Your task to perform on an android device: Open accessibility settings Image 0: 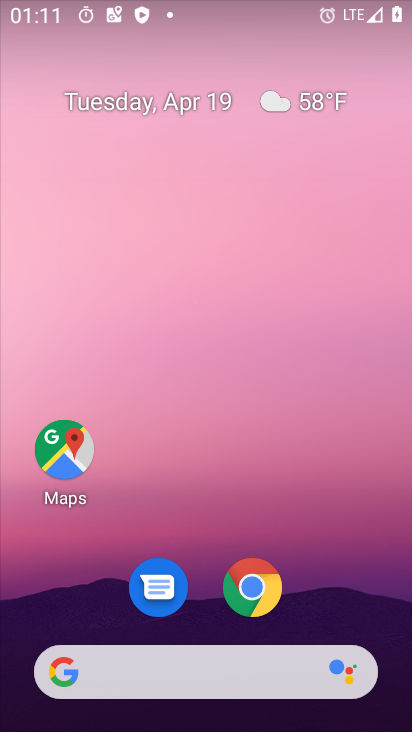
Step 0: drag from (347, 586) to (352, 128)
Your task to perform on an android device: Open accessibility settings Image 1: 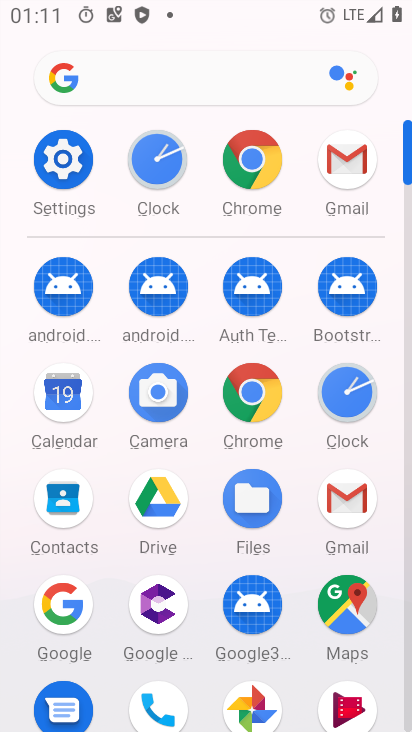
Step 1: click (76, 172)
Your task to perform on an android device: Open accessibility settings Image 2: 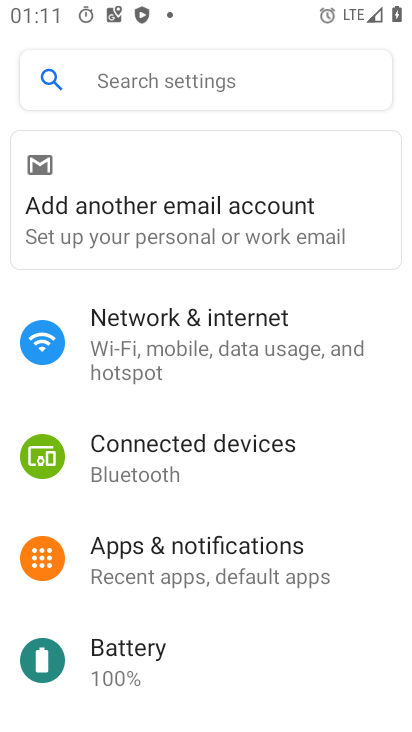
Step 2: drag from (287, 597) to (338, 261)
Your task to perform on an android device: Open accessibility settings Image 3: 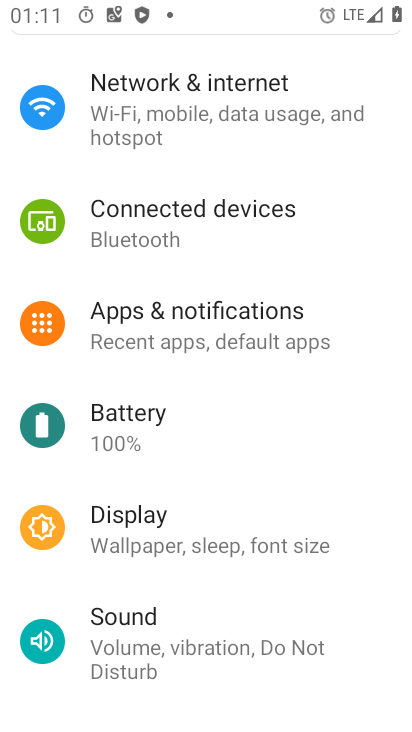
Step 3: drag from (356, 590) to (384, 220)
Your task to perform on an android device: Open accessibility settings Image 4: 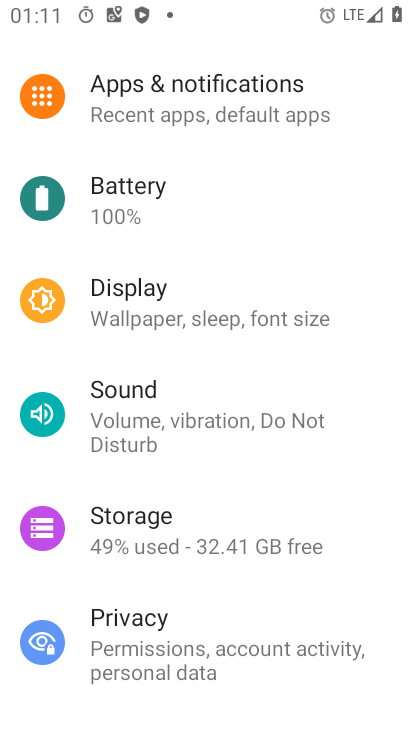
Step 4: drag from (347, 579) to (352, 257)
Your task to perform on an android device: Open accessibility settings Image 5: 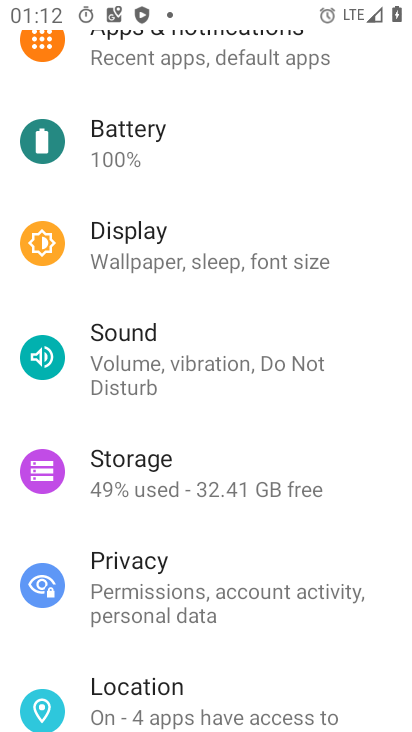
Step 5: drag from (299, 610) to (333, 246)
Your task to perform on an android device: Open accessibility settings Image 6: 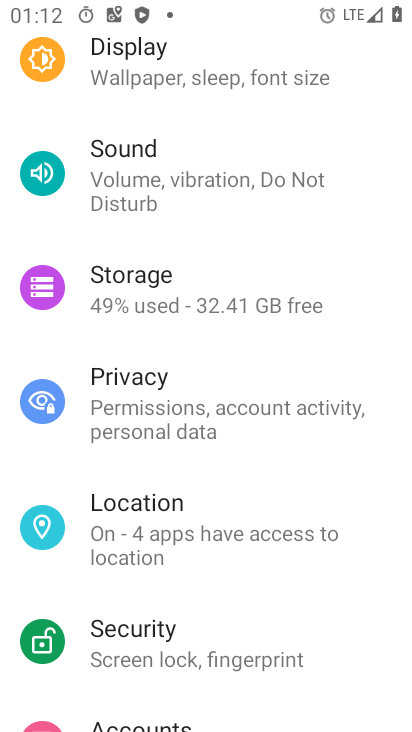
Step 6: drag from (310, 565) to (331, 285)
Your task to perform on an android device: Open accessibility settings Image 7: 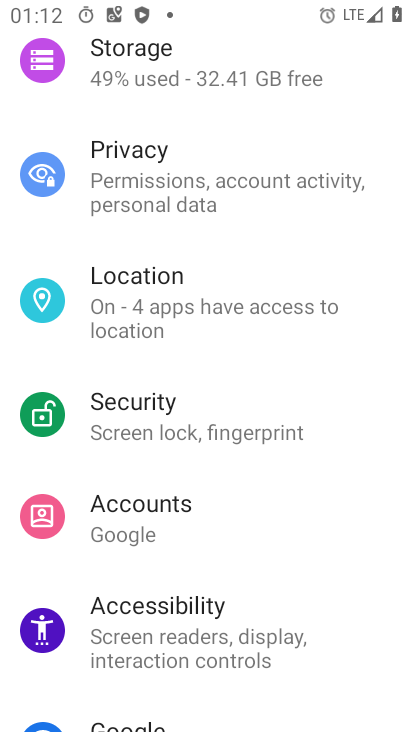
Step 7: click (221, 631)
Your task to perform on an android device: Open accessibility settings Image 8: 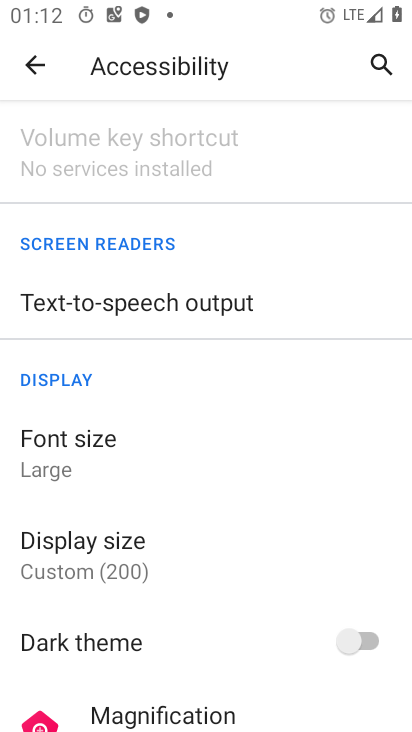
Step 8: task complete